Your task to perform on an android device: Open calendar and show me the second week of next month Image 0: 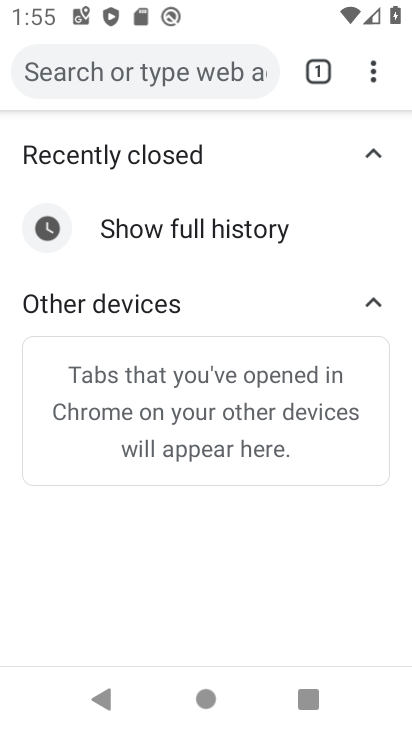
Step 0: press home button
Your task to perform on an android device: Open calendar and show me the second week of next month Image 1: 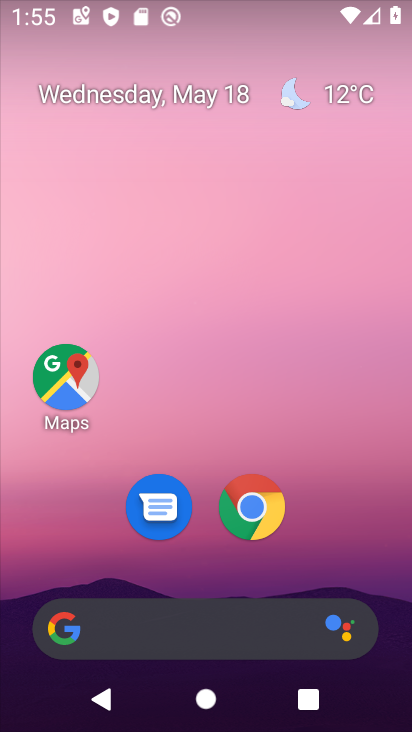
Step 1: drag from (395, 542) to (377, 239)
Your task to perform on an android device: Open calendar and show me the second week of next month Image 2: 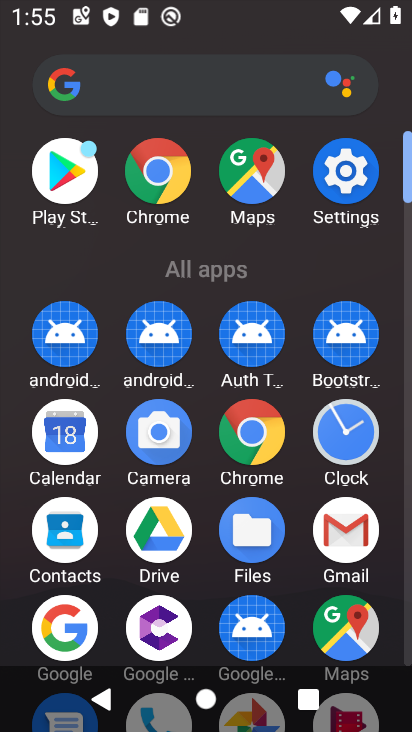
Step 2: click (35, 441)
Your task to perform on an android device: Open calendar and show me the second week of next month Image 3: 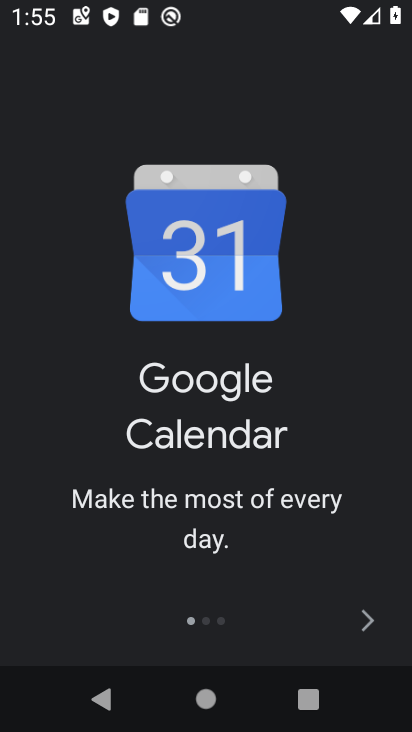
Step 3: click (362, 617)
Your task to perform on an android device: Open calendar and show me the second week of next month Image 4: 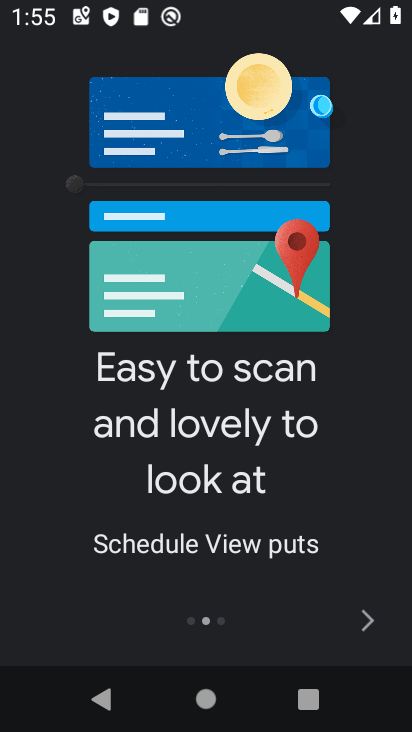
Step 4: click (363, 618)
Your task to perform on an android device: Open calendar and show me the second week of next month Image 5: 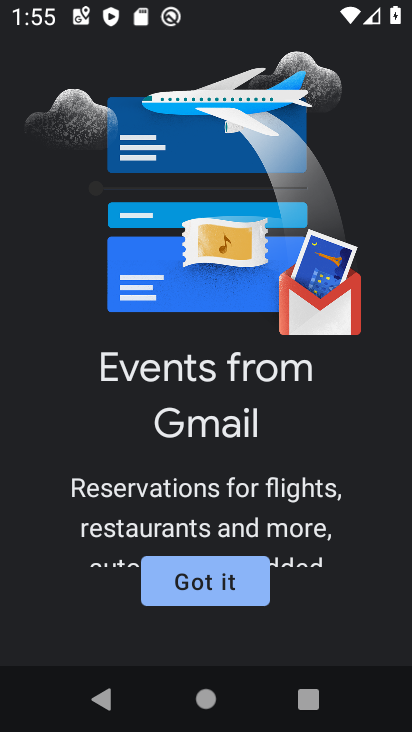
Step 5: click (216, 594)
Your task to perform on an android device: Open calendar and show me the second week of next month Image 6: 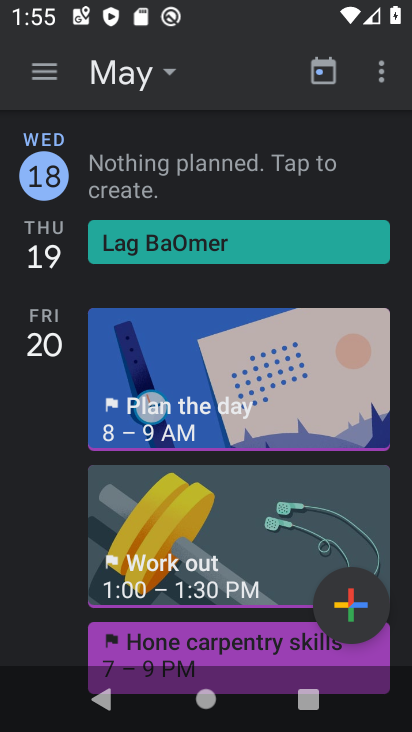
Step 6: click (382, 71)
Your task to perform on an android device: Open calendar and show me the second week of next month Image 7: 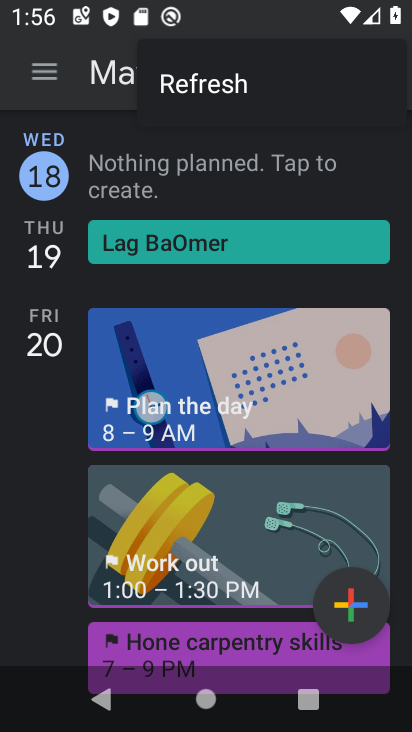
Step 7: click (111, 99)
Your task to perform on an android device: Open calendar and show me the second week of next month Image 8: 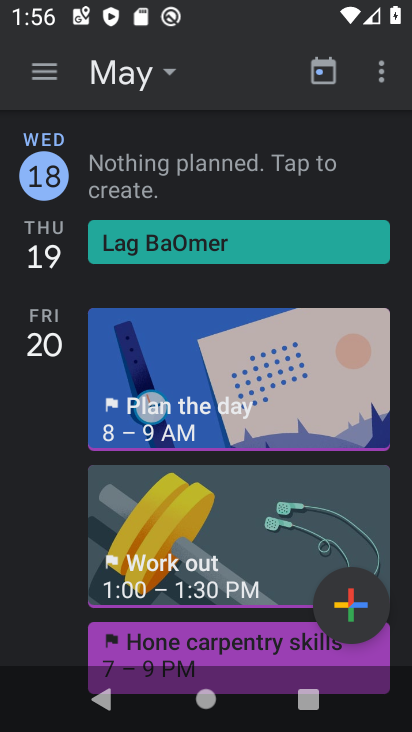
Step 8: click (165, 71)
Your task to perform on an android device: Open calendar and show me the second week of next month Image 9: 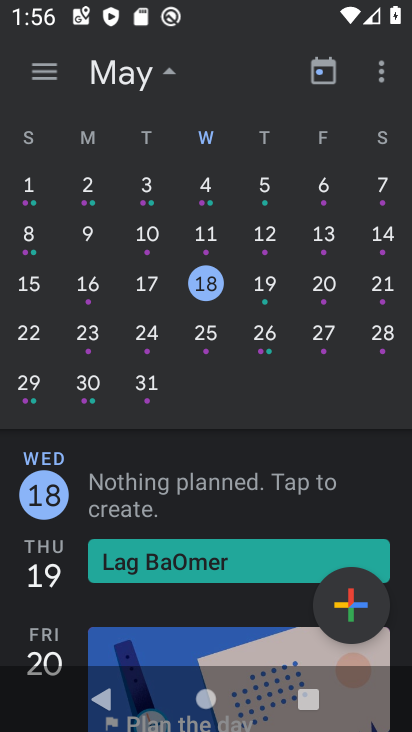
Step 9: drag from (397, 238) to (1, 184)
Your task to perform on an android device: Open calendar and show me the second week of next month Image 10: 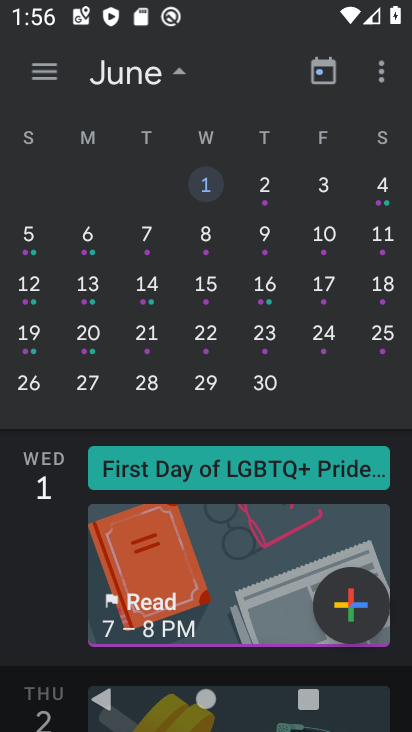
Step 10: click (259, 239)
Your task to perform on an android device: Open calendar and show me the second week of next month Image 11: 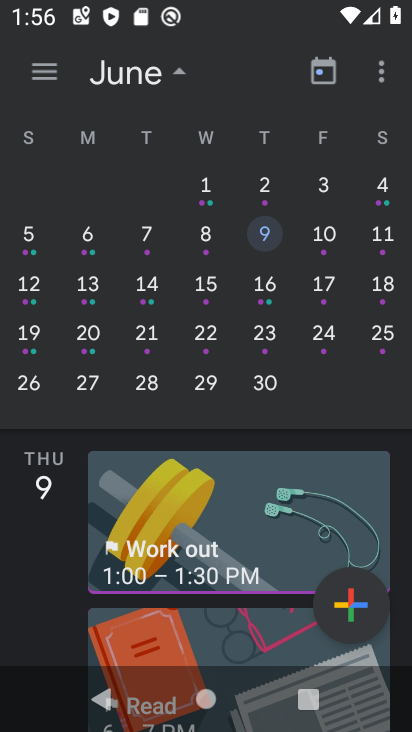
Step 11: task complete